Your task to perform on an android device: Open the calendar app, open the side menu, and click the "Day" option Image 0: 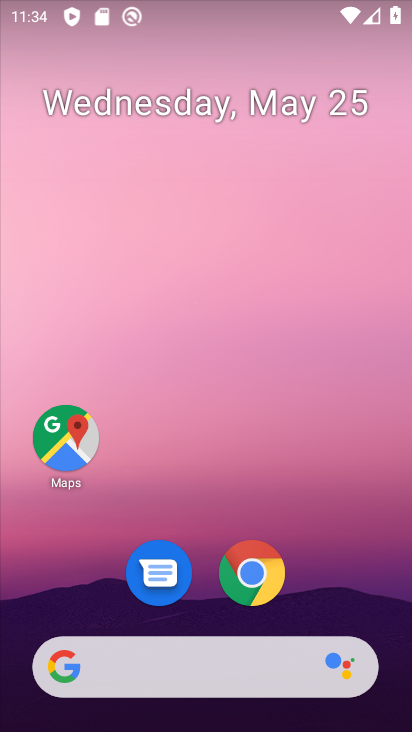
Step 0: drag from (214, 656) to (212, 12)
Your task to perform on an android device: Open the calendar app, open the side menu, and click the "Day" option Image 1: 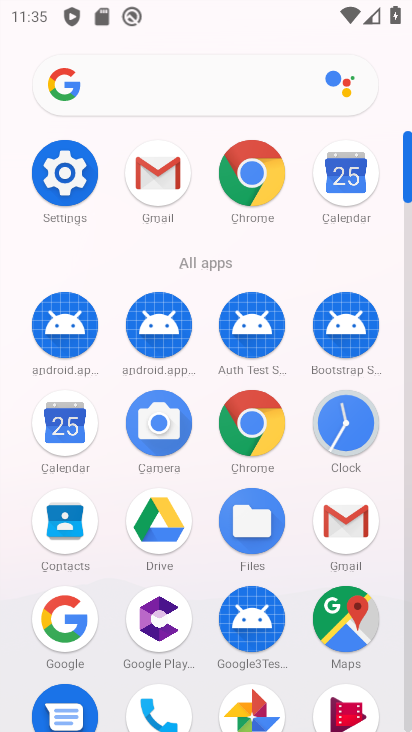
Step 1: click (73, 448)
Your task to perform on an android device: Open the calendar app, open the side menu, and click the "Day" option Image 2: 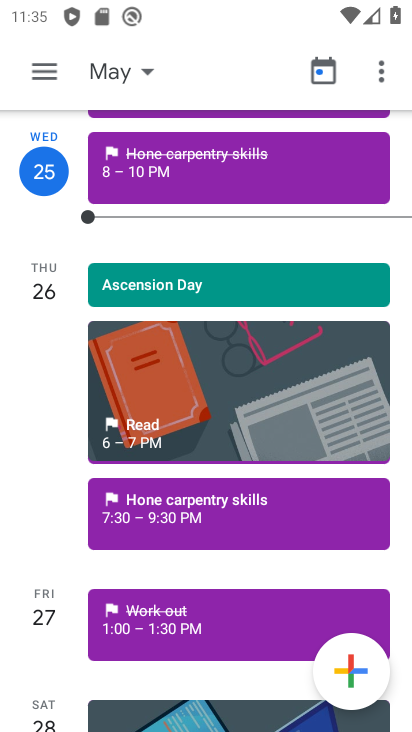
Step 2: click (41, 68)
Your task to perform on an android device: Open the calendar app, open the side menu, and click the "Day" option Image 3: 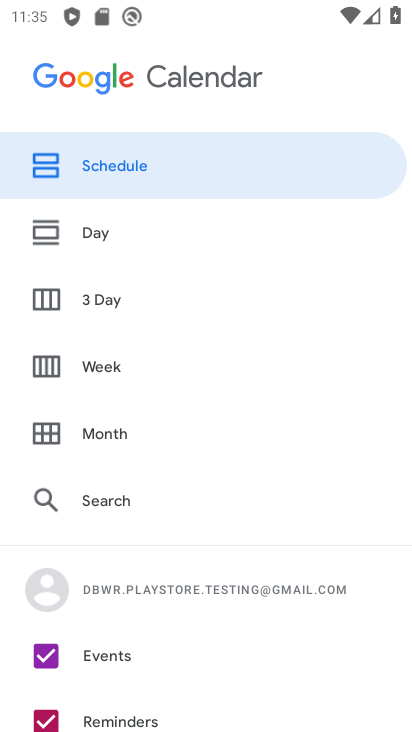
Step 3: click (44, 82)
Your task to perform on an android device: Open the calendar app, open the side menu, and click the "Day" option Image 4: 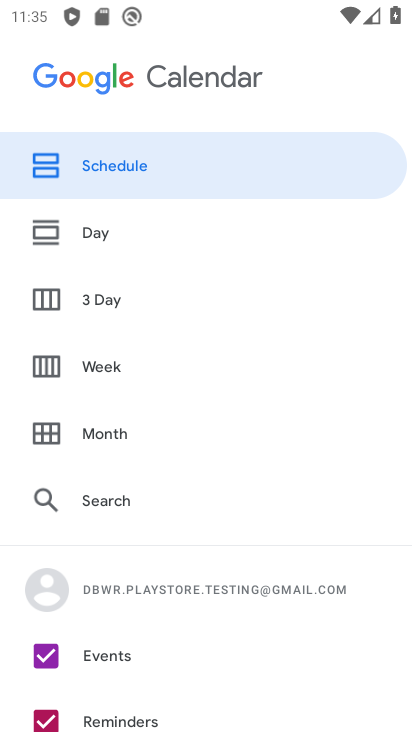
Step 4: click (107, 240)
Your task to perform on an android device: Open the calendar app, open the side menu, and click the "Day" option Image 5: 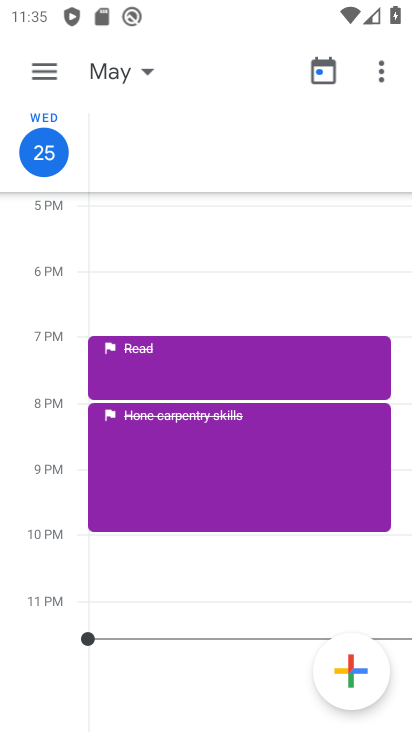
Step 5: task complete